Your task to perform on an android device: toggle notifications settings in the gmail app Image 0: 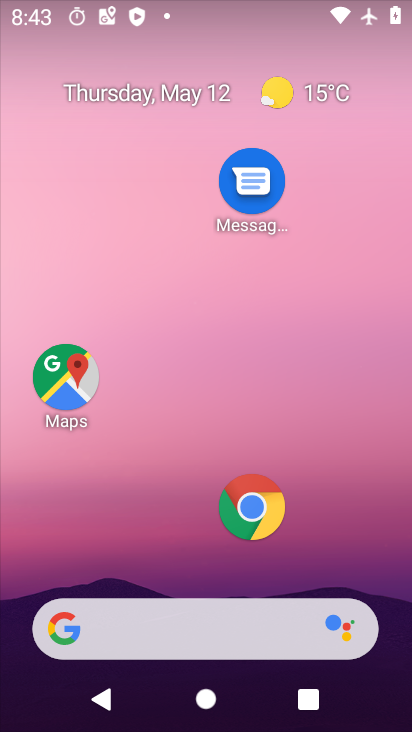
Step 0: drag from (314, 536) to (376, 38)
Your task to perform on an android device: toggle notifications settings in the gmail app Image 1: 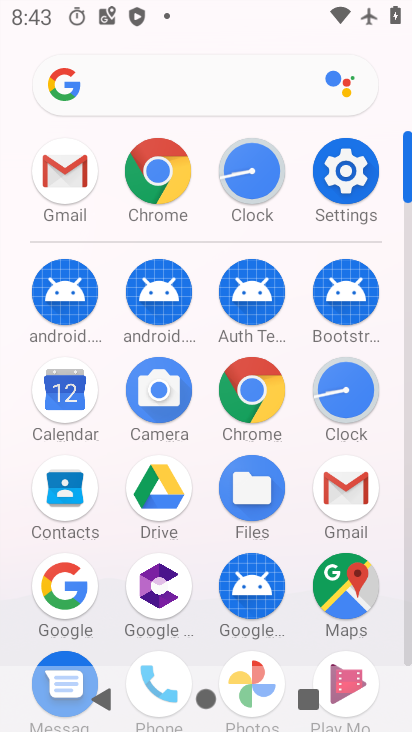
Step 1: click (335, 489)
Your task to perform on an android device: toggle notifications settings in the gmail app Image 2: 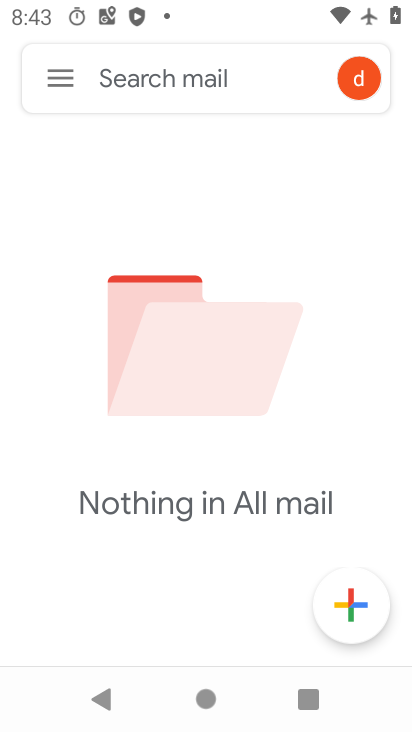
Step 2: click (53, 76)
Your task to perform on an android device: toggle notifications settings in the gmail app Image 3: 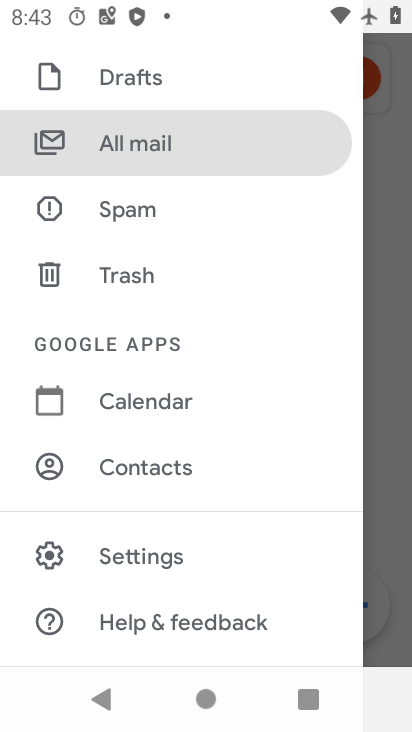
Step 3: click (153, 557)
Your task to perform on an android device: toggle notifications settings in the gmail app Image 4: 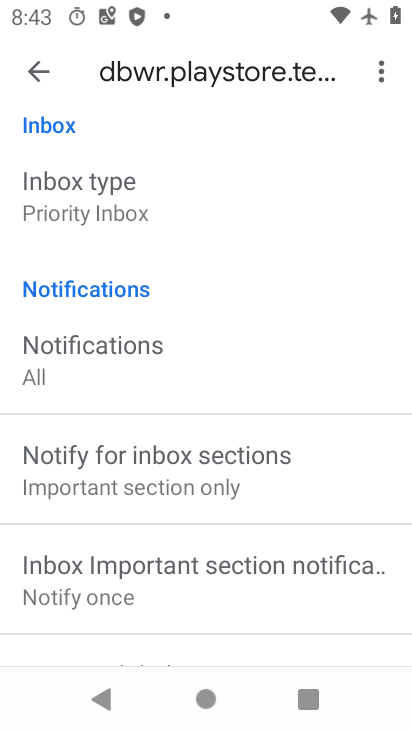
Step 4: drag from (148, 612) to (262, 409)
Your task to perform on an android device: toggle notifications settings in the gmail app Image 5: 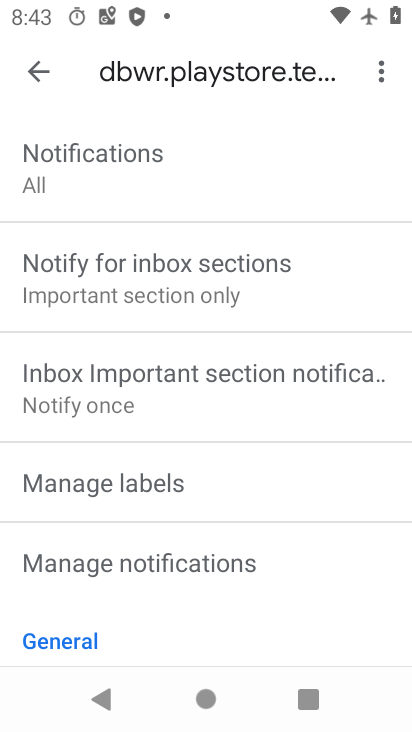
Step 5: click (244, 567)
Your task to perform on an android device: toggle notifications settings in the gmail app Image 6: 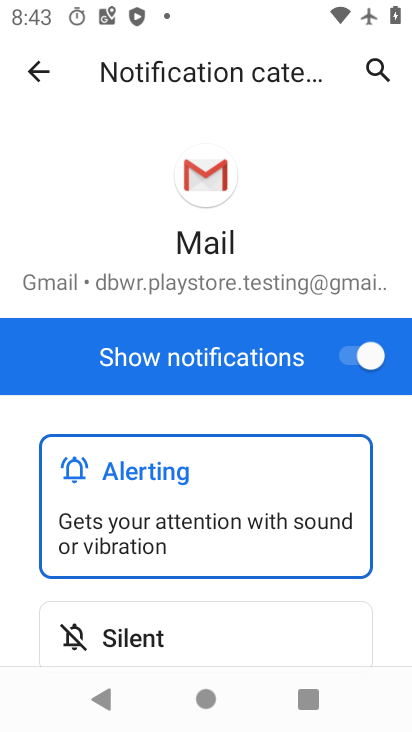
Step 6: click (350, 346)
Your task to perform on an android device: toggle notifications settings in the gmail app Image 7: 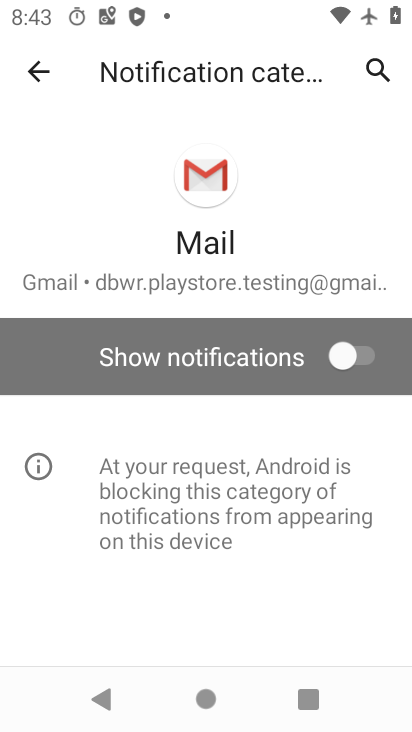
Step 7: task complete